Your task to perform on an android device: install app "Facebook Lite" Image 0: 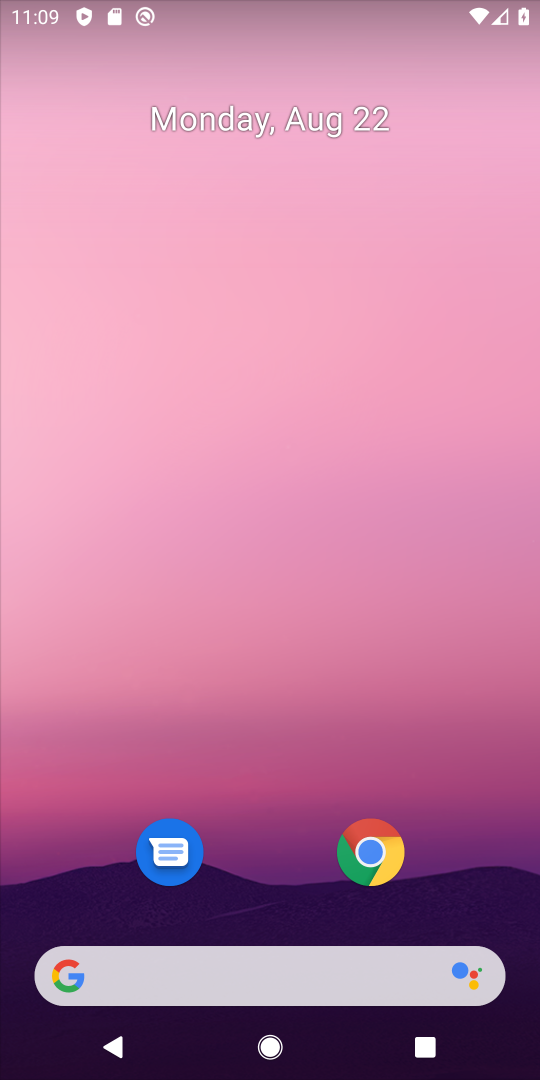
Step 0: drag from (298, 699) to (351, 140)
Your task to perform on an android device: install app "Facebook Lite" Image 1: 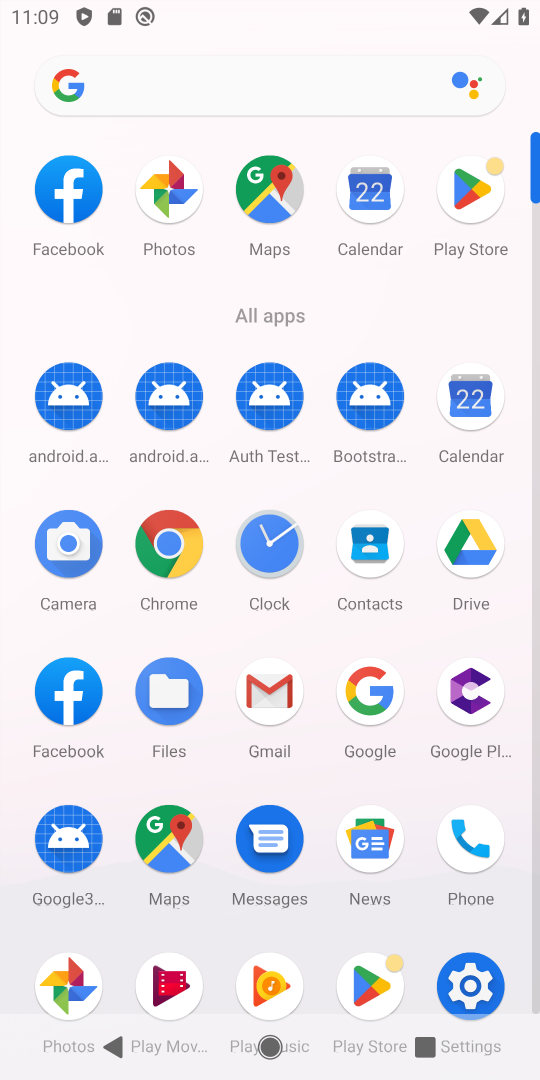
Step 1: click (460, 222)
Your task to perform on an android device: install app "Facebook Lite" Image 2: 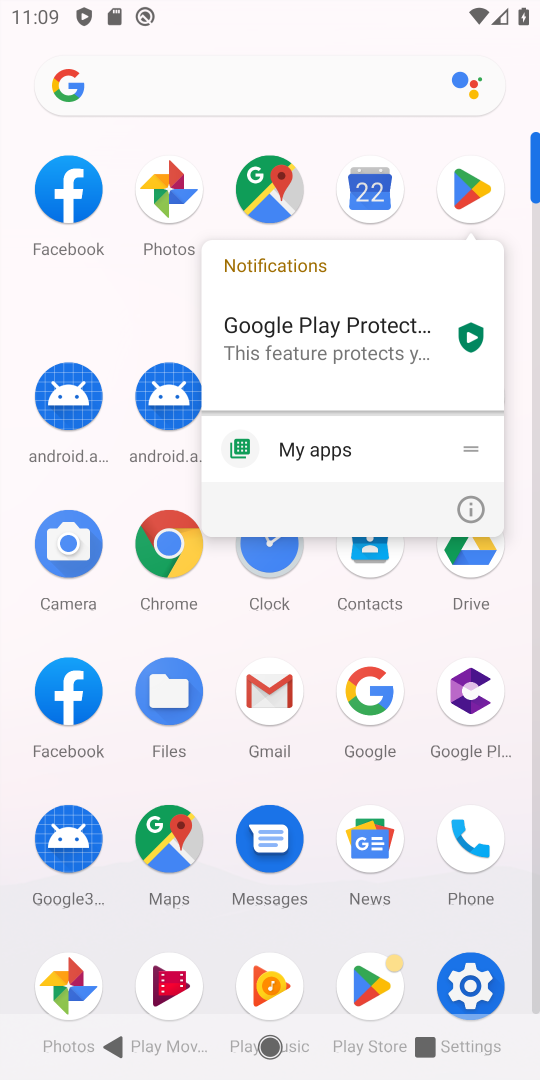
Step 2: click (461, 212)
Your task to perform on an android device: install app "Facebook Lite" Image 3: 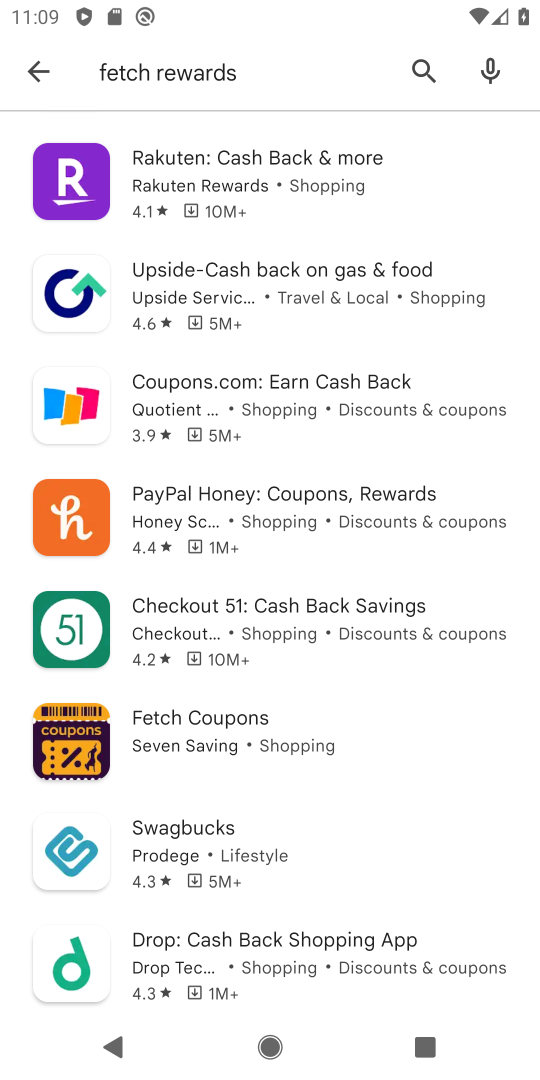
Step 3: click (264, 71)
Your task to perform on an android device: install app "Facebook Lite" Image 4: 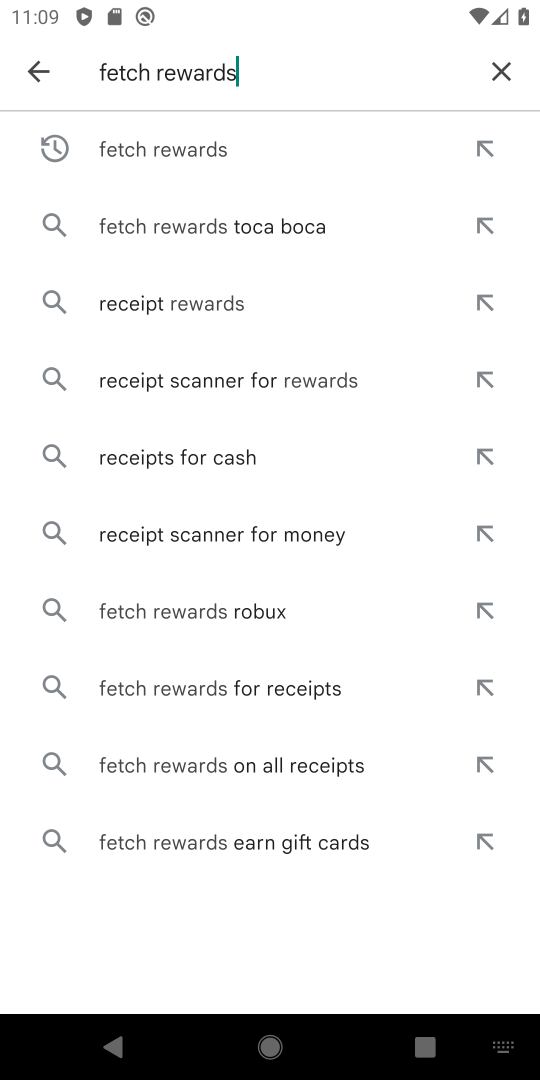
Step 4: click (493, 68)
Your task to perform on an android device: install app "Facebook Lite" Image 5: 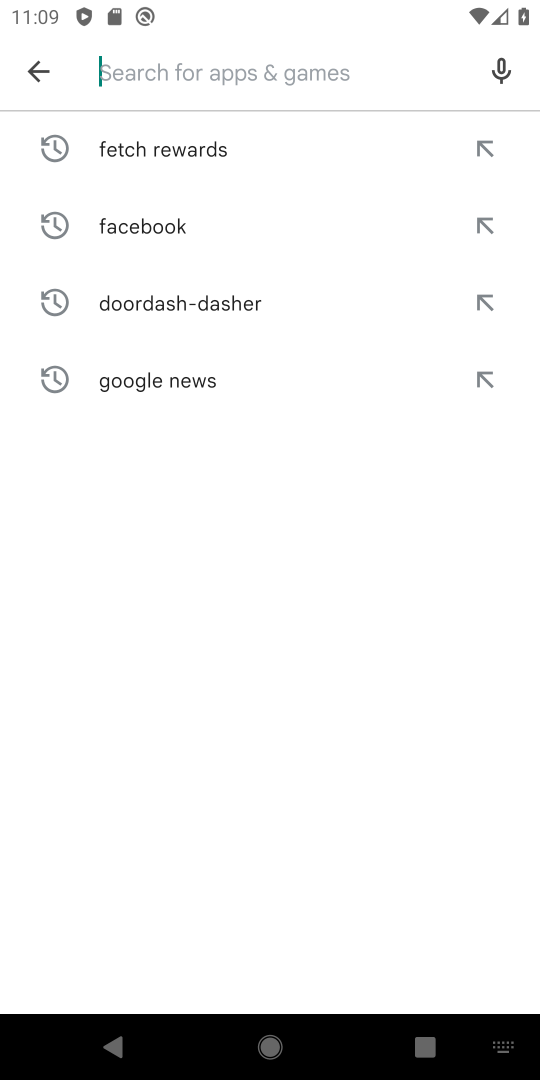
Step 5: type "facebook lite"
Your task to perform on an android device: install app "Facebook Lite" Image 6: 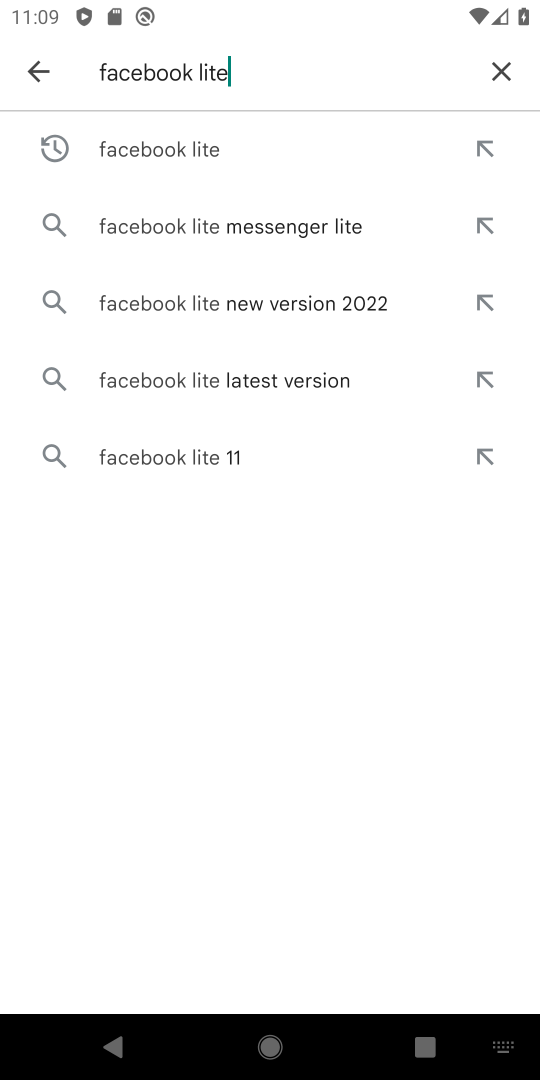
Step 6: click (161, 136)
Your task to perform on an android device: install app "Facebook Lite" Image 7: 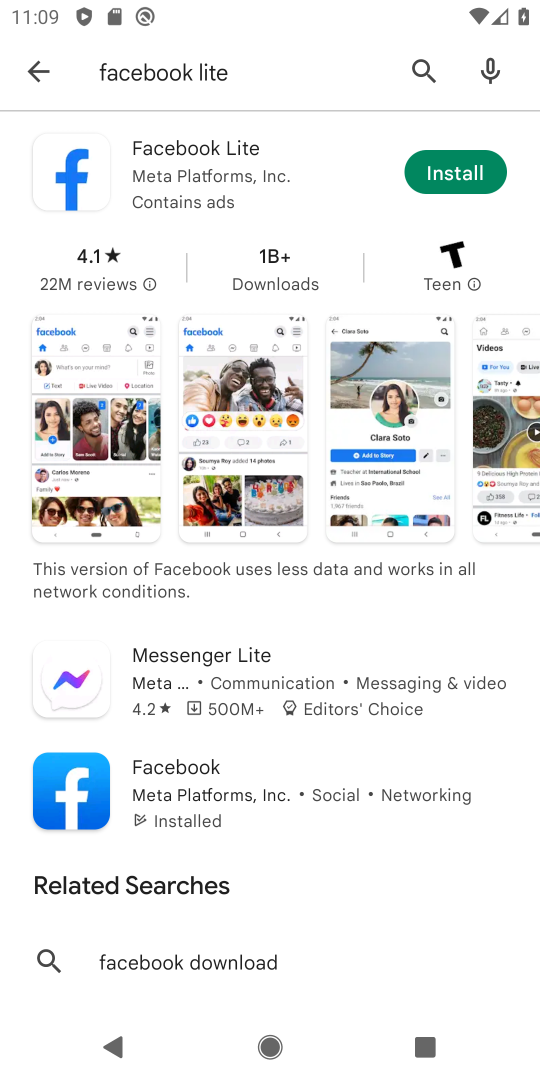
Step 7: click (466, 184)
Your task to perform on an android device: install app "Facebook Lite" Image 8: 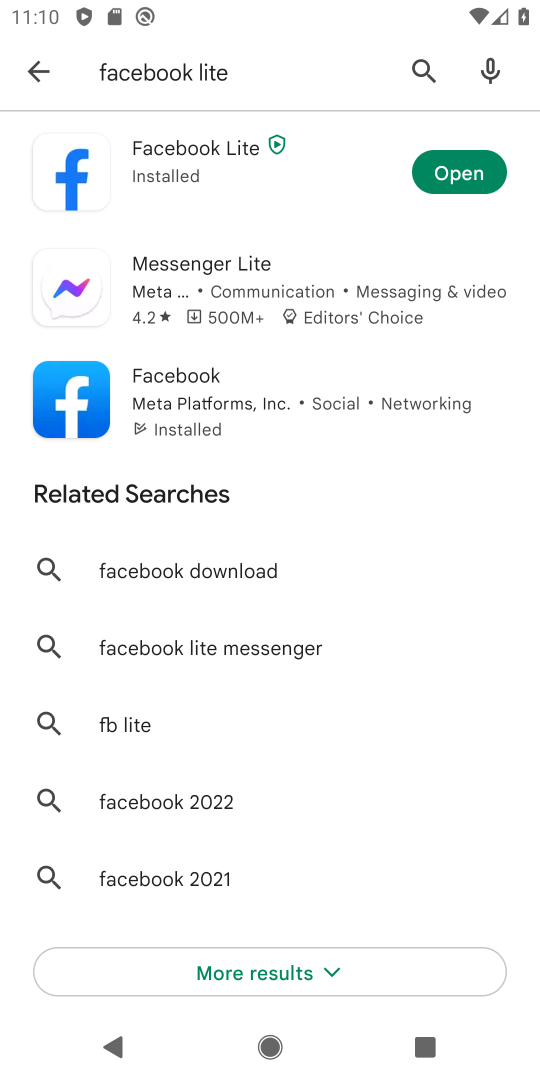
Step 8: task complete